Your task to perform on an android device: Go to Amazon Image 0: 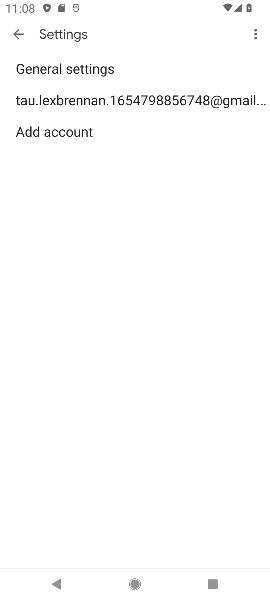
Step 0: click (23, 41)
Your task to perform on an android device: Go to Amazon Image 1: 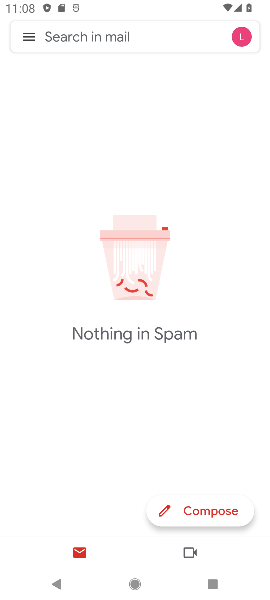
Step 1: press back button
Your task to perform on an android device: Go to Amazon Image 2: 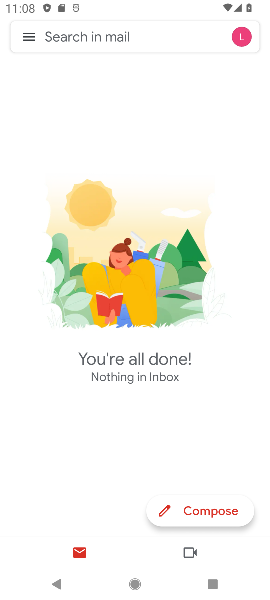
Step 2: click (31, 42)
Your task to perform on an android device: Go to Amazon Image 3: 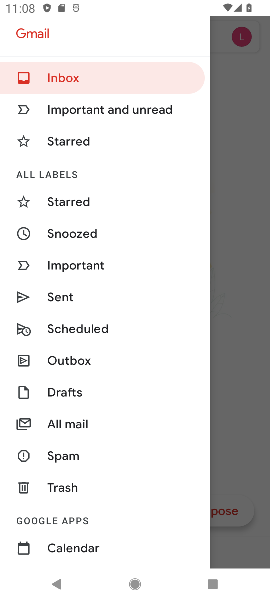
Step 3: press back button
Your task to perform on an android device: Go to Amazon Image 4: 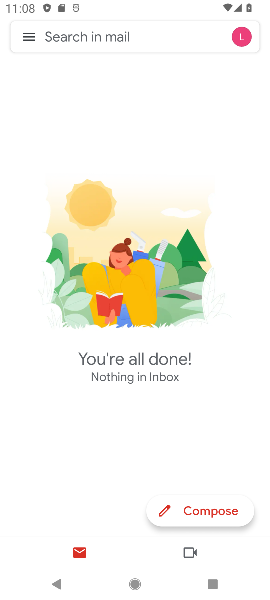
Step 4: press home button
Your task to perform on an android device: Go to Amazon Image 5: 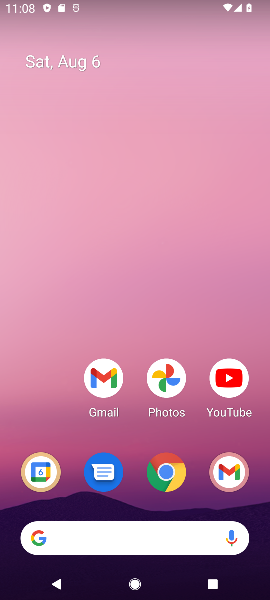
Step 5: drag from (152, 491) to (77, 134)
Your task to perform on an android device: Go to Amazon Image 6: 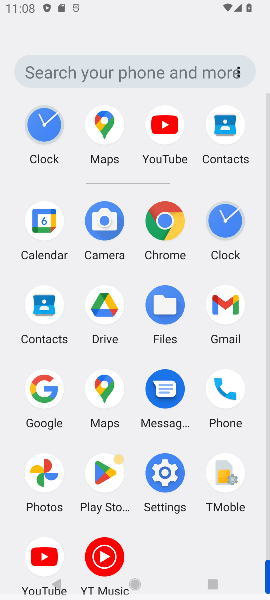
Step 6: drag from (146, 565) to (70, 164)
Your task to perform on an android device: Go to Amazon Image 7: 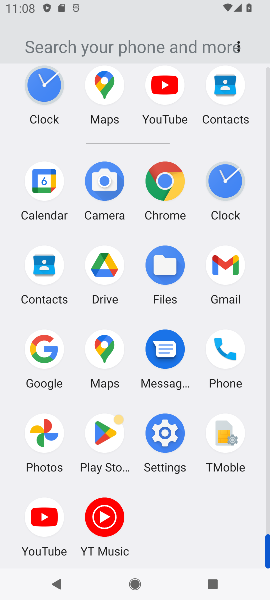
Step 7: click (171, 180)
Your task to perform on an android device: Go to Amazon Image 8: 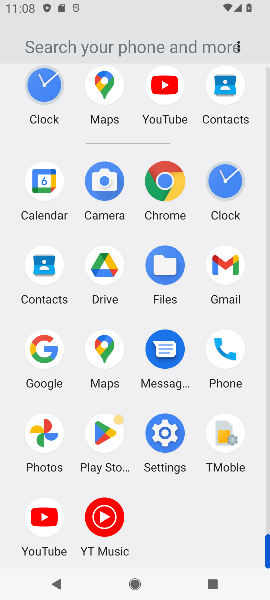
Step 8: click (160, 202)
Your task to perform on an android device: Go to Amazon Image 9: 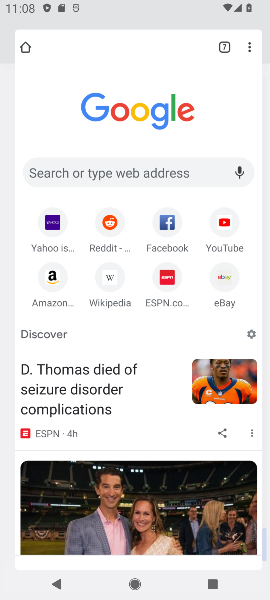
Step 9: click (161, 186)
Your task to perform on an android device: Go to Amazon Image 10: 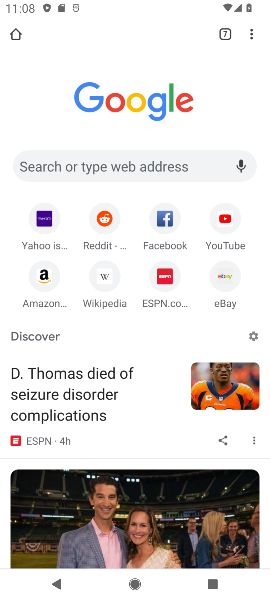
Step 10: click (162, 185)
Your task to perform on an android device: Go to Amazon Image 11: 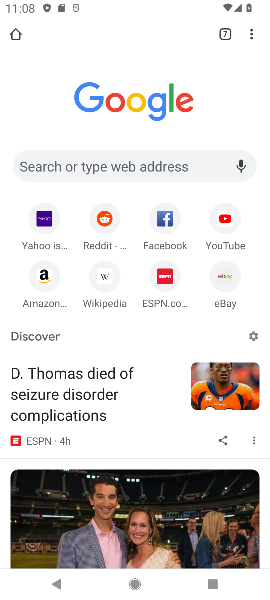
Step 11: click (52, 274)
Your task to perform on an android device: Go to Amazon Image 12: 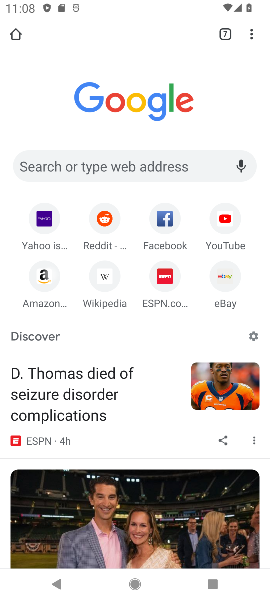
Step 12: click (49, 274)
Your task to perform on an android device: Go to Amazon Image 13: 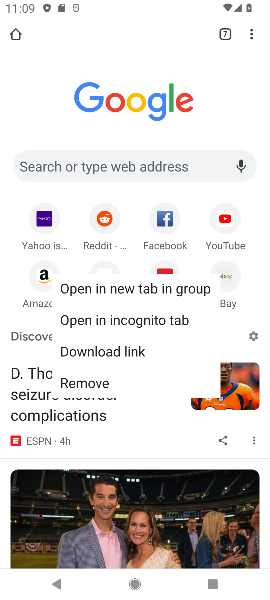
Step 13: click (48, 274)
Your task to perform on an android device: Go to Amazon Image 14: 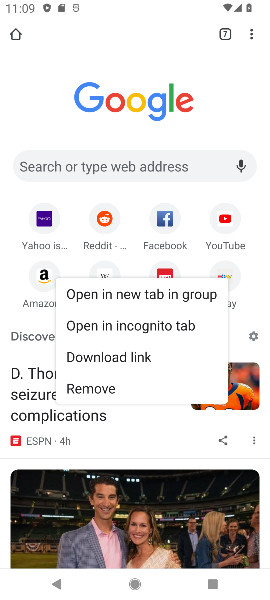
Step 14: click (48, 275)
Your task to perform on an android device: Go to Amazon Image 15: 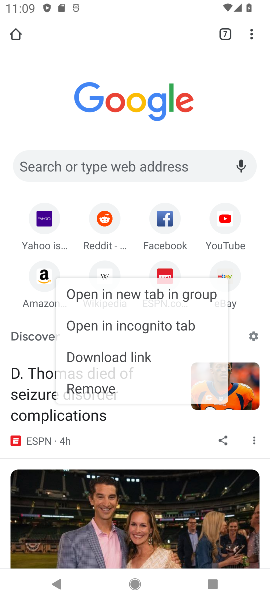
Step 15: click (50, 277)
Your task to perform on an android device: Go to Amazon Image 16: 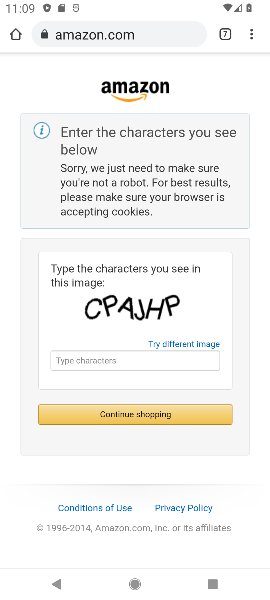
Step 16: click (46, 271)
Your task to perform on an android device: Go to Amazon Image 17: 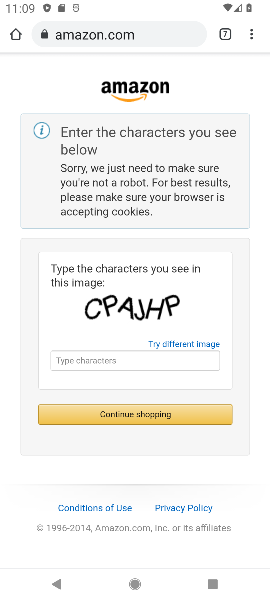
Step 17: task complete